Your task to perform on an android device: refresh tabs in the chrome app Image 0: 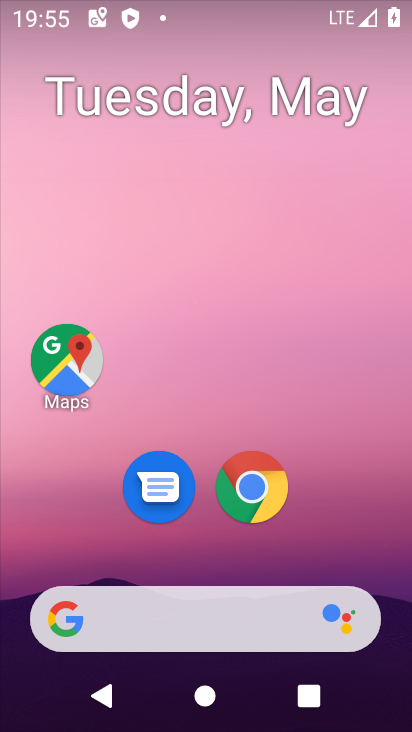
Step 0: click (247, 494)
Your task to perform on an android device: refresh tabs in the chrome app Image 1: 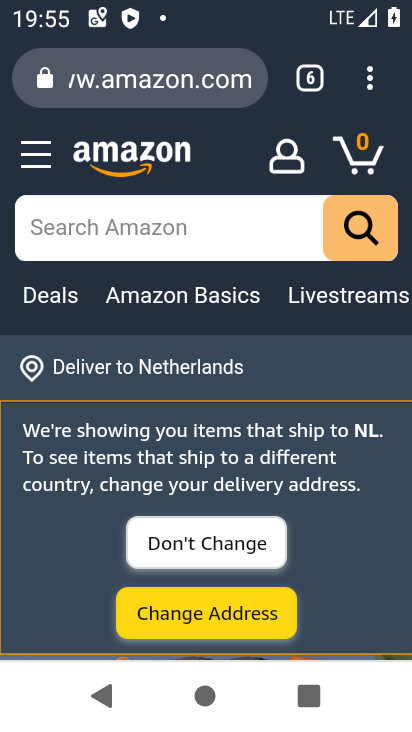
Step 1: click (371, 75)
Your task to perform on an android device: refresh tabs in the chrome app Image 2: 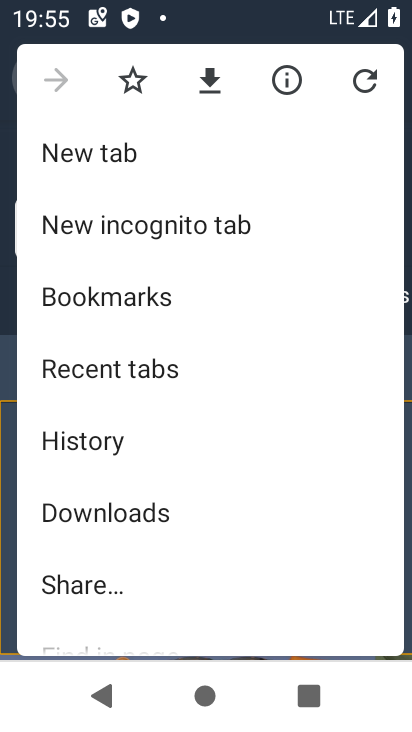
Step 2: click (363, 81)
Your task to perform on an android device: refresh tabs in the chrome app Image 3: 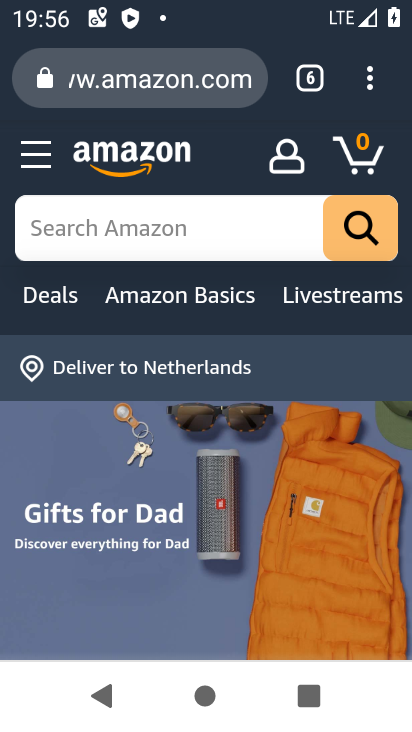
Step 3: task complete